Your task to perform on an android device: Open ESPN.com Image 0: 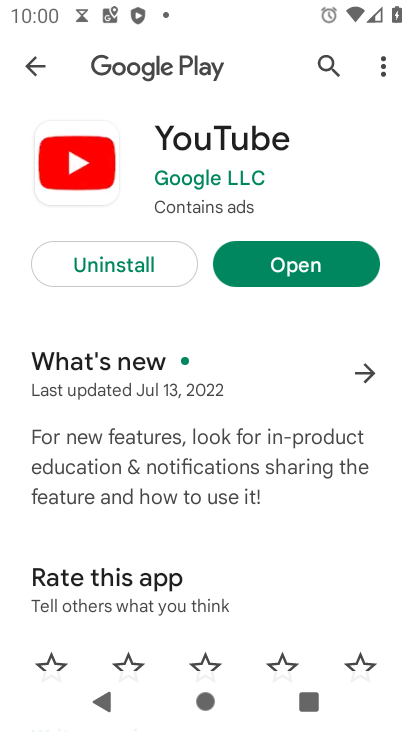
Step 0: press home button
Your task to perform on an android device: Open ESPN.com Image 1: 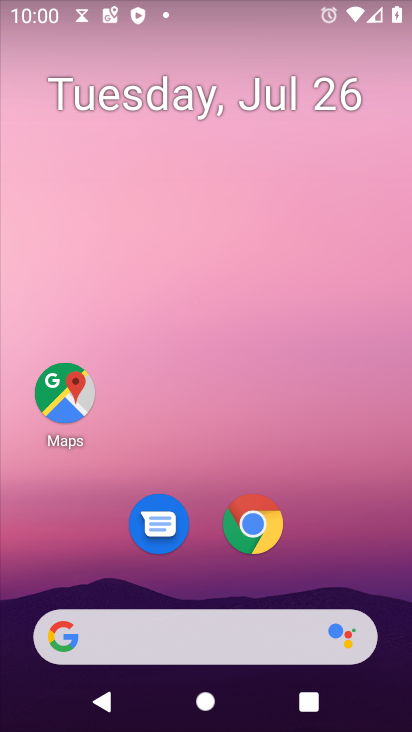
Step 1: click (255, 528)
Your task to perform on an android device: Open ESPN.com Image 2: 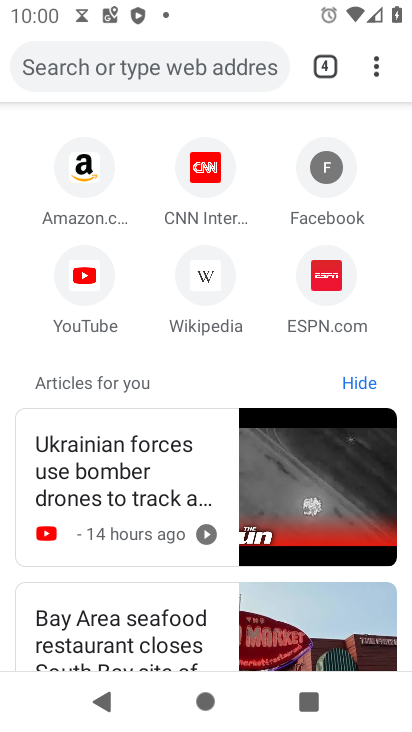
Step 2: drag from (372, 62) to (205, 124)
Your task to perform on an android device: Open ESPN.com Image 3: 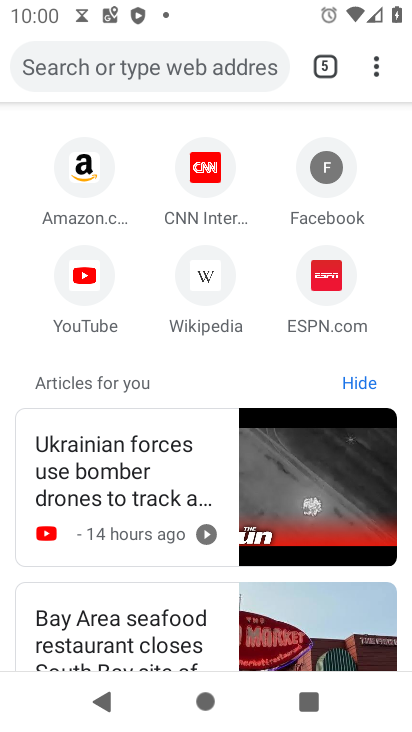
Step 3: click (326, 282)
Your task to perform on an android device: Open ESPN.com Image 4: 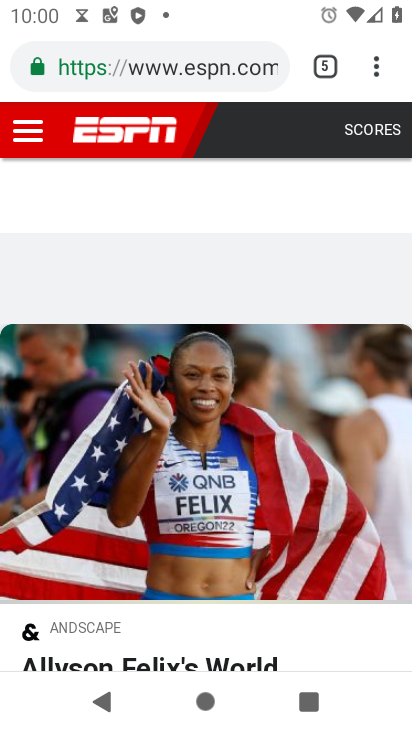
Step 4: task complete